Your task to perform on an android device: find snoozed emails in the gmail app Image 0: 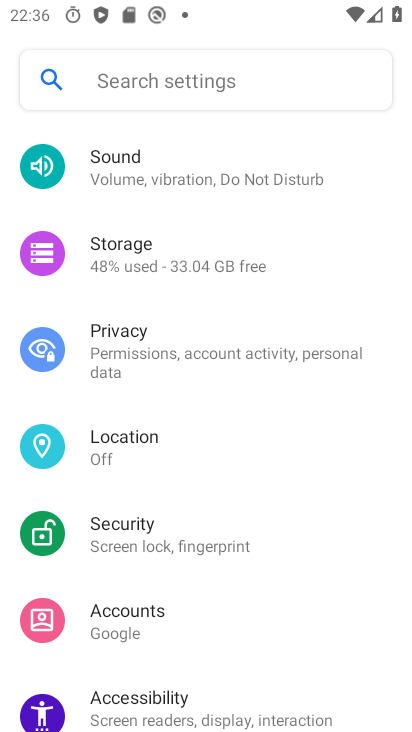
Step 0: press home button
Your task to perform on an android device: find snoozed emails in the gmail app Image 1: 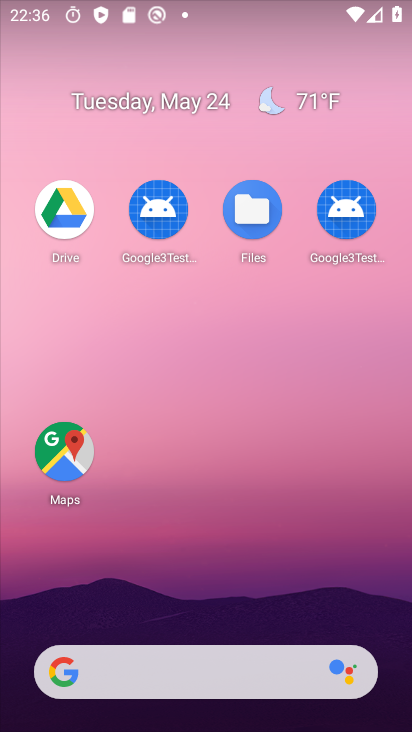
Step 1: drag from (201, 603) to (234, 42)
Your task to perform on an android device: find snoozed emails in the gmail app Image 2: 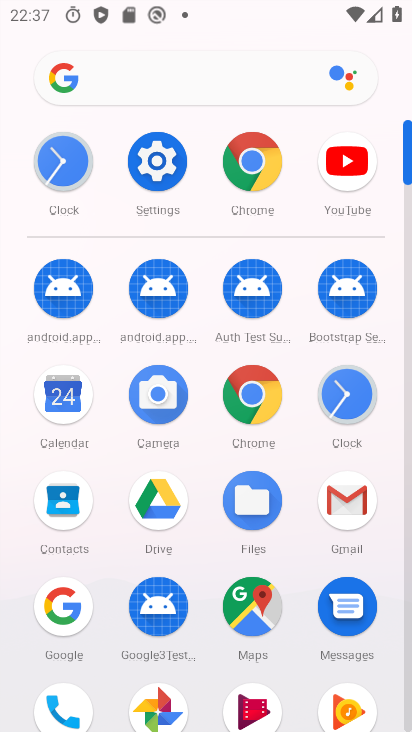
Step 2: click (346, 518)
Your task to perform on an android device: find snoozed emails in the gmail app Image 3: 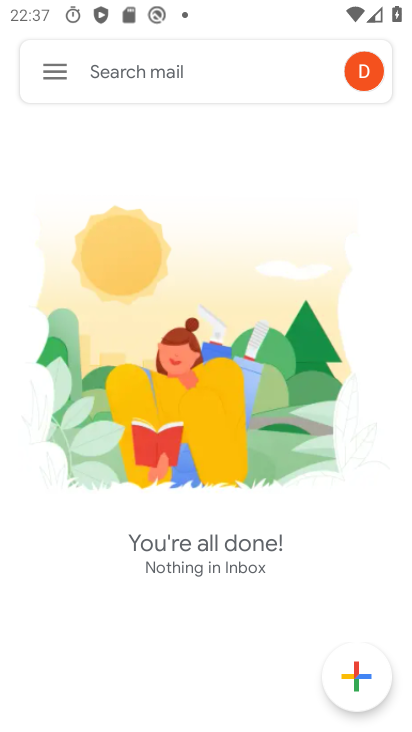
Step 3: click (40, 49)
Your task to perform on an android device: find snoozed emails in the gmail app Image 4: 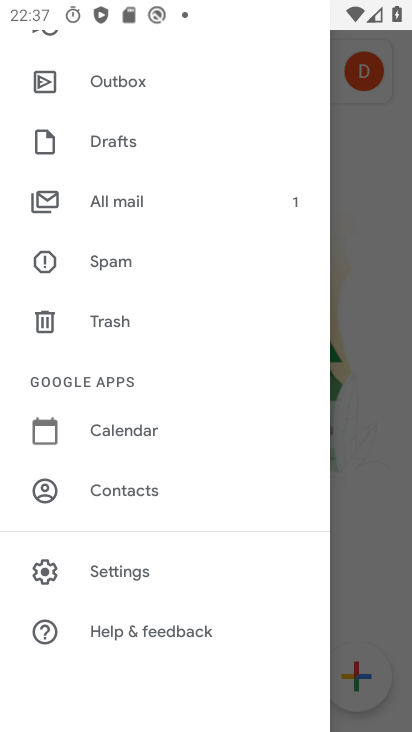
Step 4: drag from (116, 166) to (79, 510)
Your task to perform on an android device: find snoozed emails in the gmail app Image 5: 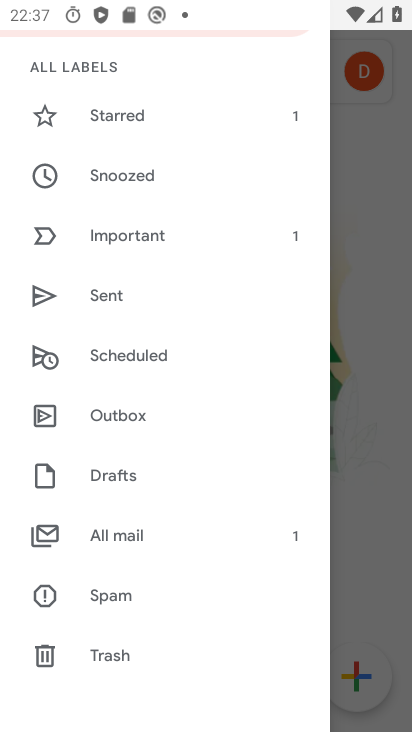
Step 5: click (119, 170)
Your task to perform on an android device: find snoozed emails in the gmail app Image 6: 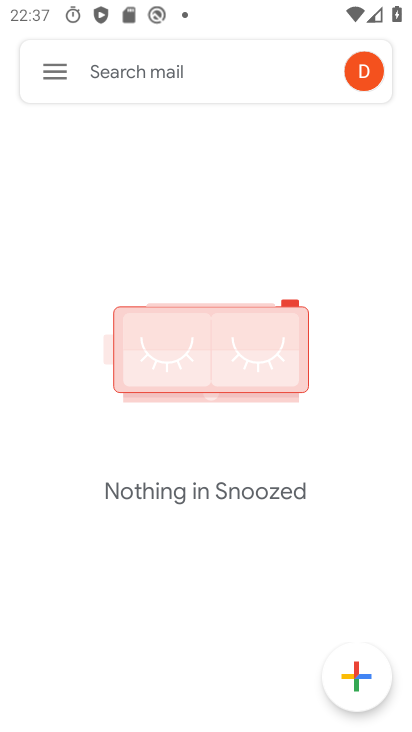
Step 6: task complete